Your task to perform on an android device: Open maps Image 0: 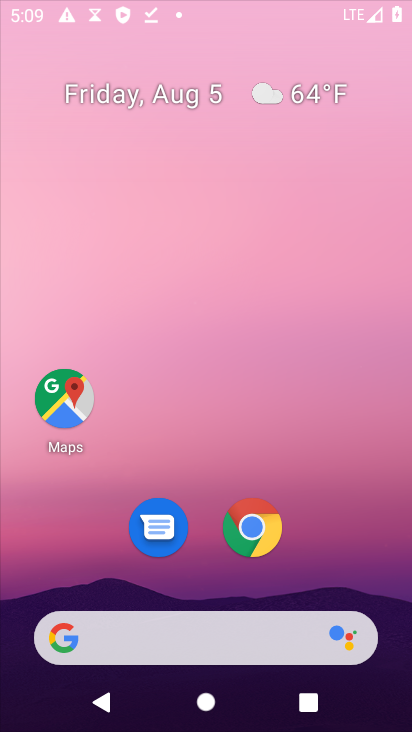
Step 0: click (244, 136)
Your task to perform on an android device: Open maps Image 1: 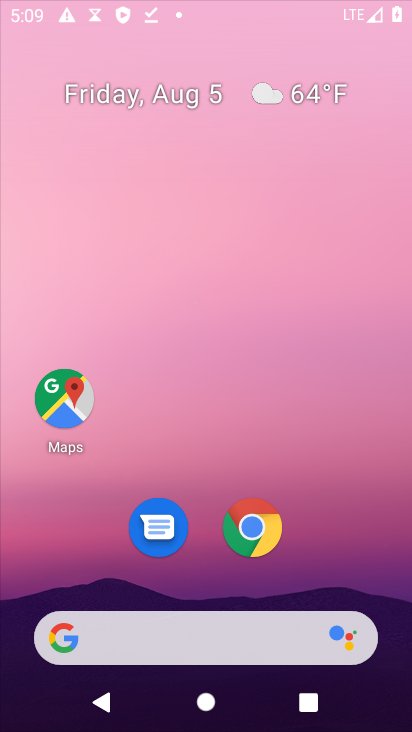
Step 1: drag from (179, 581) to (188, 229)
Your task to perform on an android device: Open maps Image 2: 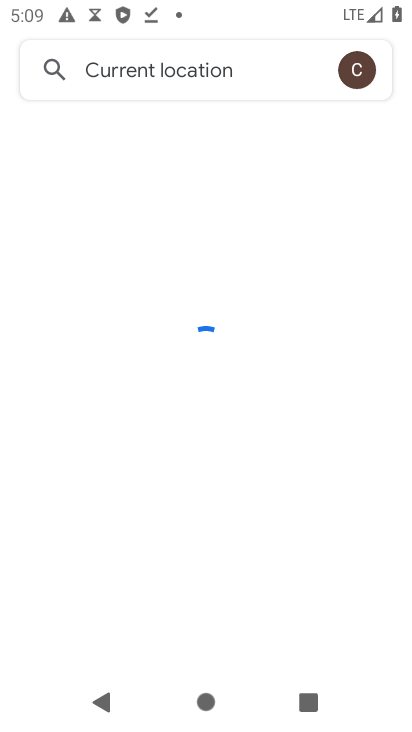
Step 2: press home button
Your task to perform on an android device: Open maps Image 3: 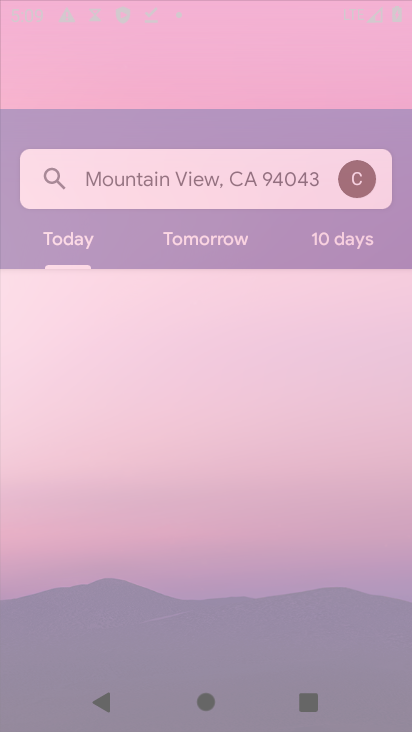
Step 3: drag from (200, 632) to (284, 133)
Your task to perform on an android device: Open maps Image 4: 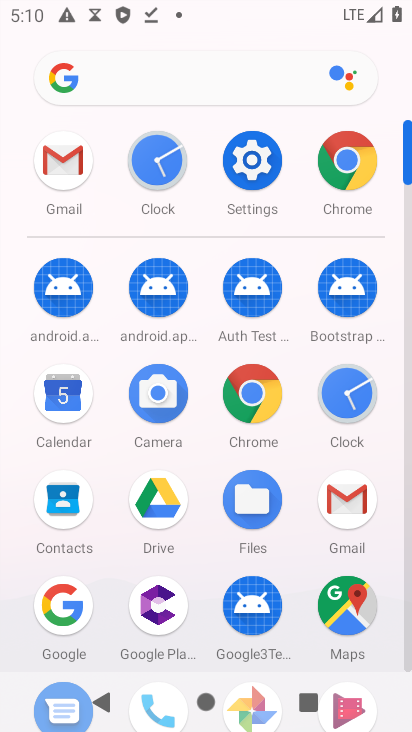
Step 4: click (355, 597)
Your task to perform on an android device: Open maps Image 5: 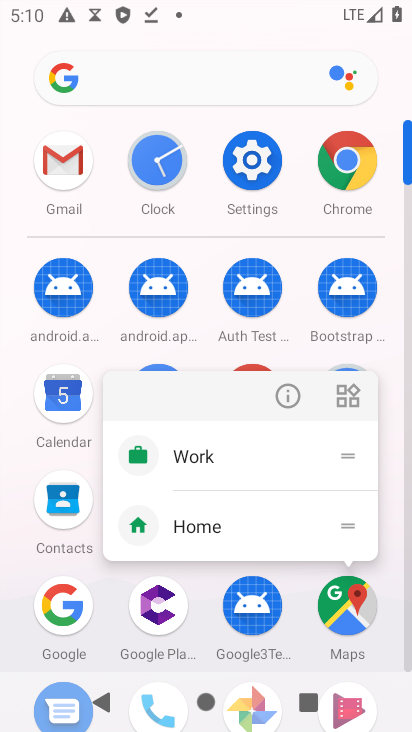
Step 5: click (278, 399)
Your task to perform on an android device: Open maps Image 6: 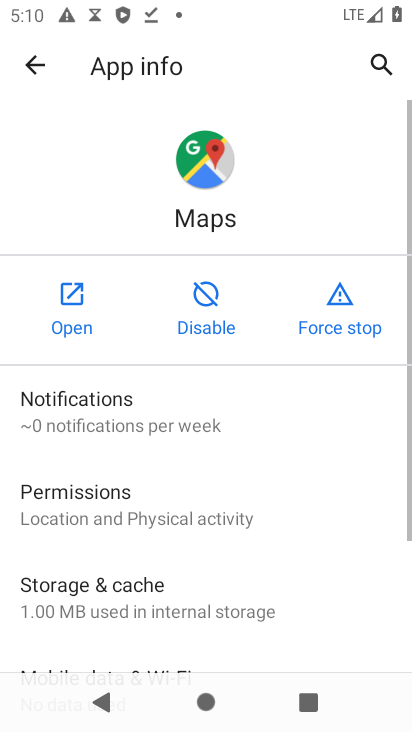
Step 6: click (60, 326)
Your task to perform on an android device: Open maps Image 7: 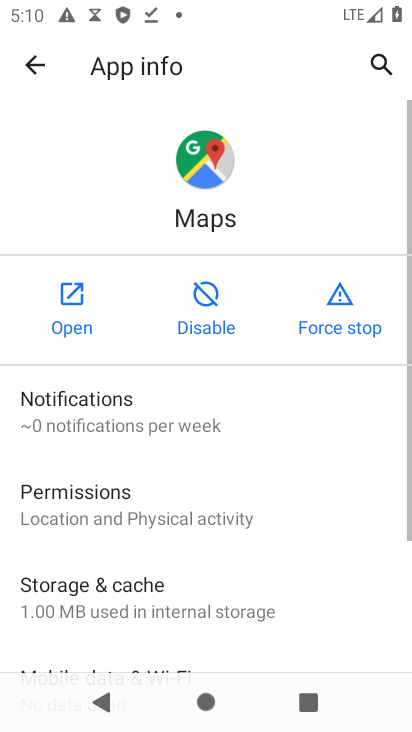
Step 7: click (62, 325)
Your task to perform on an android device: Open maps Image 8: 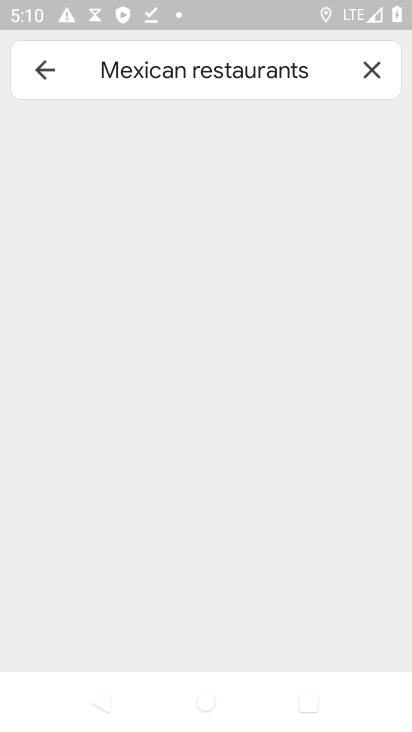
Step 8: click (382, 78)
Your task to perform on an android device: Open maps Image 9: 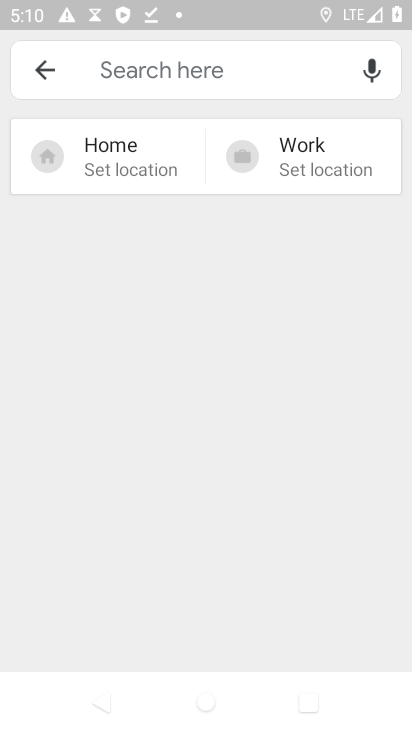
Step 9: click (220, 89)
Your task to perform on an android device: Open maps Image 10: 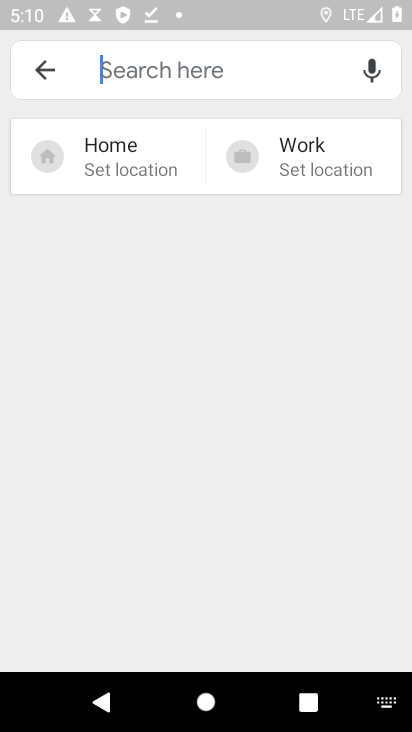
Step 10: click (48, 55)
Your task to perform on an android device: Open maps Image 11: 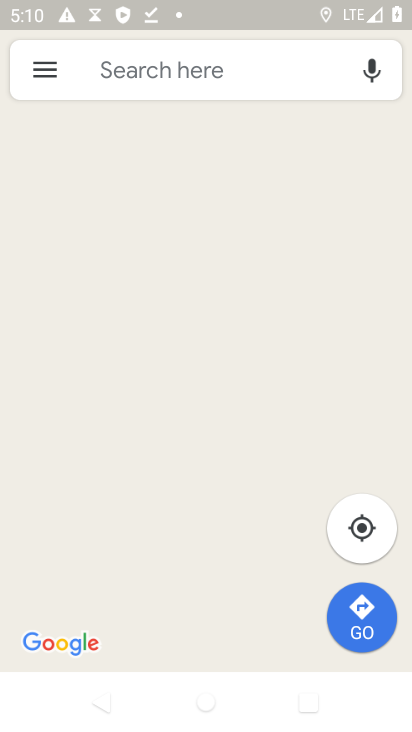
Step 11: task complete